Your task to perform on an android device: Go to internet settings Image 0: 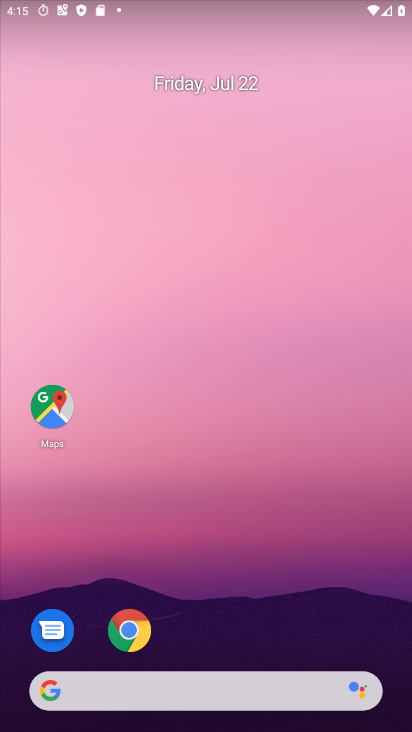
Step 0: drag from (238, 693) to (233, 45)
Your task to perform on an android device: Go to internet settings Image 1: 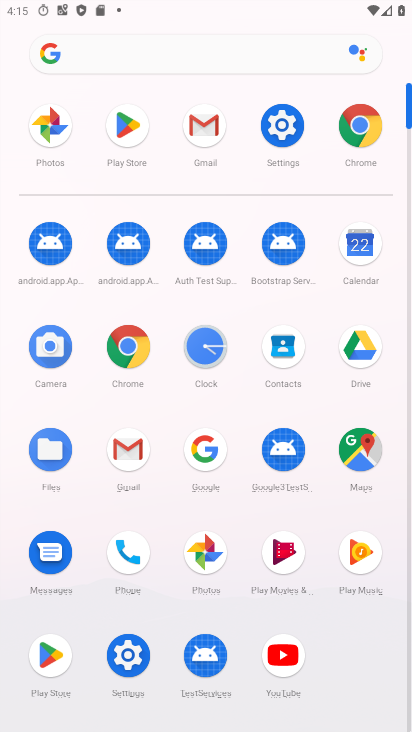
Step 1: click (278, 113)
Your task to perform on an android device: Go to internet settings Image 2: 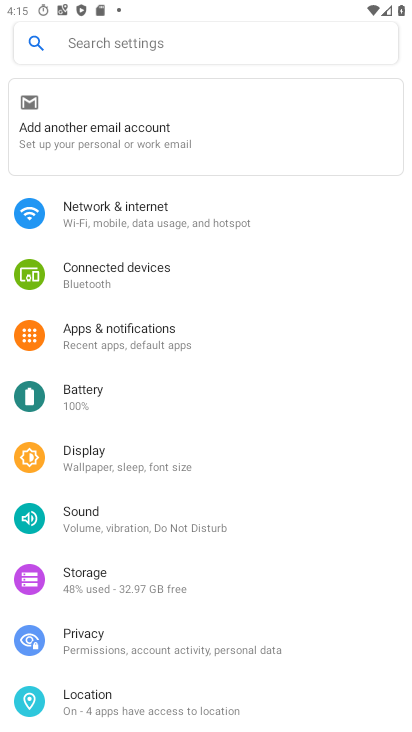
Step 2: click (183, 213)
Your task to perform on an android device: Go to internet settings Image 3: 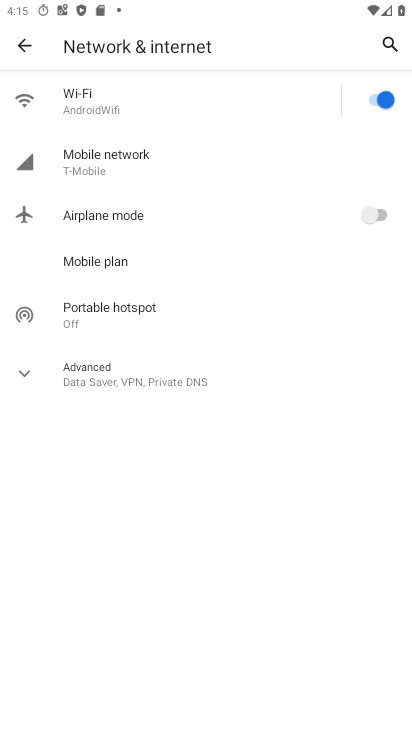
Step 3: task complete